Your task to perform on an android device: Open maps Image 0: 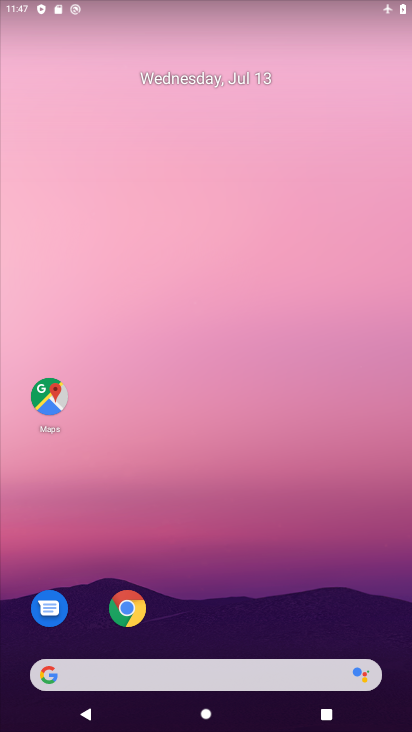
Step 0: click (28, 394)
Your task to perform on an android device: Open maps Image 1: 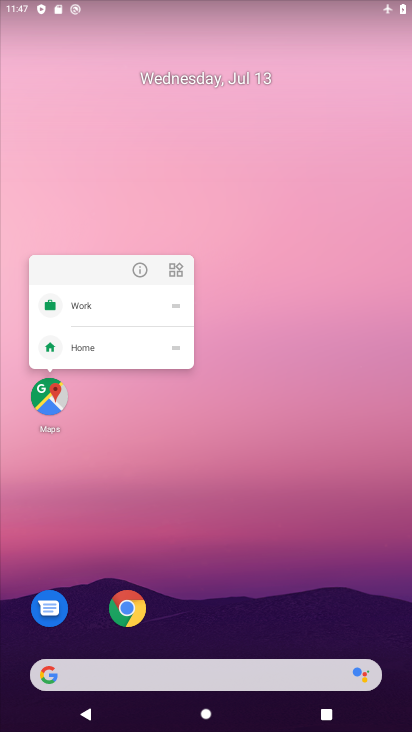
Step 1: click (49, 396)
Your task to perform on an android device: Open maps Image 2: 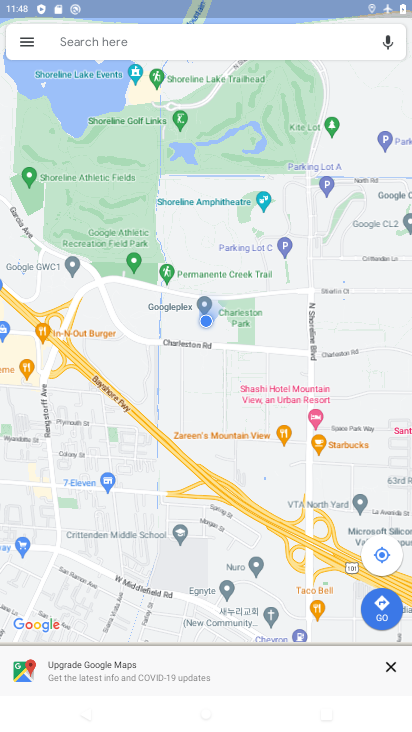
Step 2: task complete